Your task to perform on an android device: turn notification dots off Image 0: 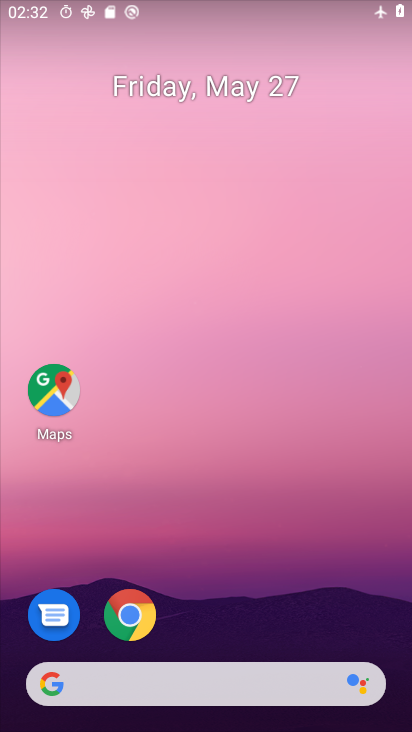
Step 0: drag from (379, 631) to (364, 247)
Your task to perform on an android device: turn notification dots off Image 1: 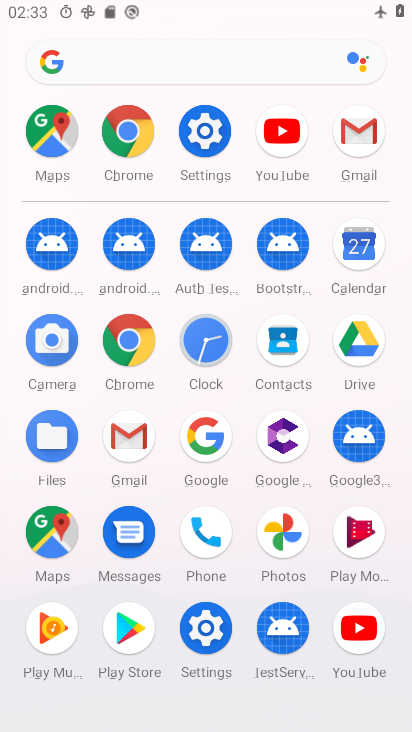
Step 1: click (218, 650)
Your task to perform on an android device: turn notification dots off Image 2: 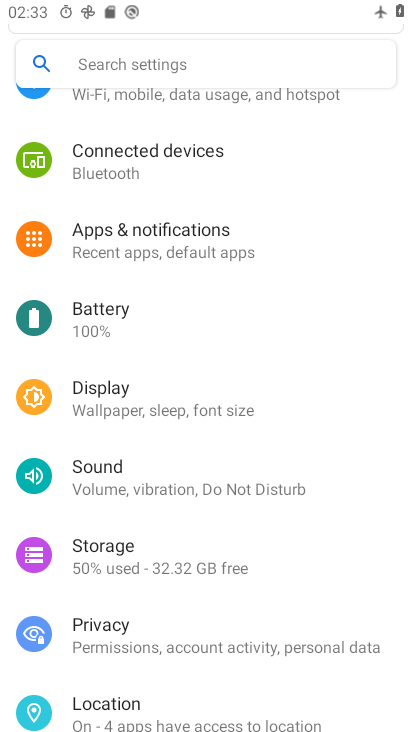
Step 2: drag from (335, 286) to (328, 420)
Your task to perform on an android device: turn notification dots off Image 3: 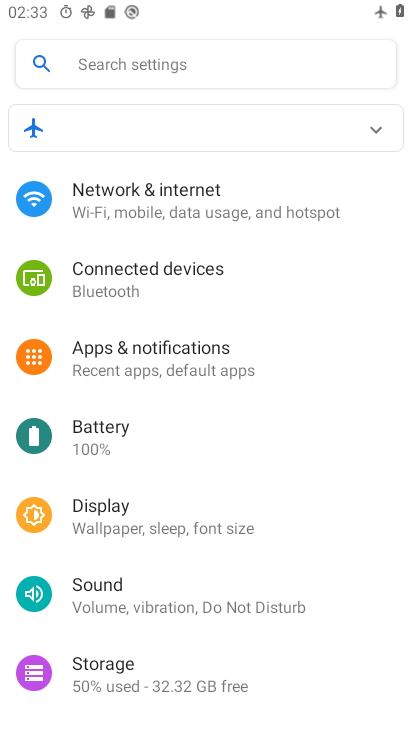
Step 3: drag from (336, 288) to (339, 444)
Your task to perform on an android device: turn notification dots off Image 4: 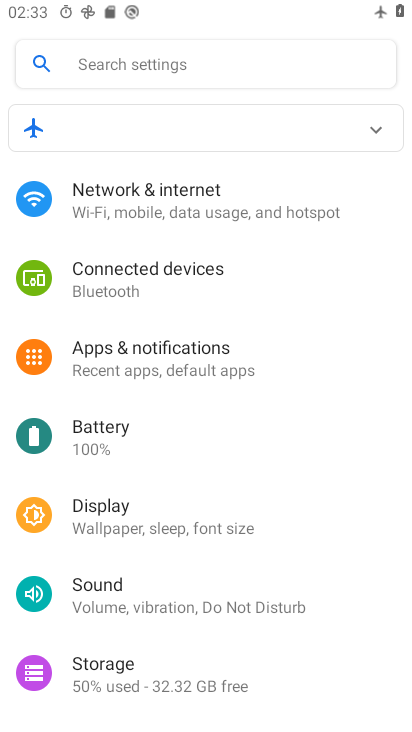
Step 4: drag from (337, 577) to (335, 420)
Your task to perform on an android device: turn notification dots off Image 5: 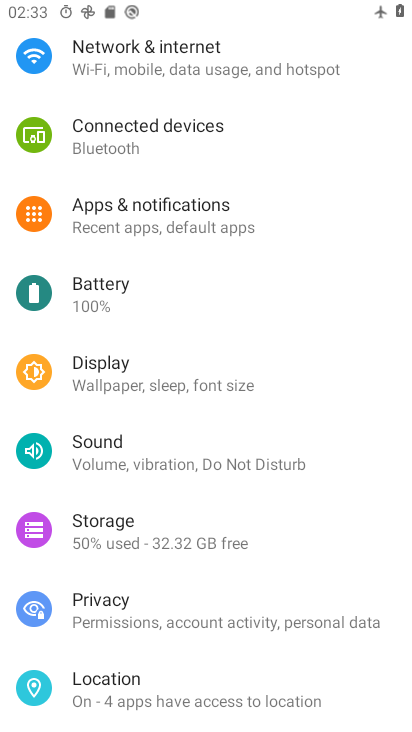
Step 5: drag from (330, 575) to (333, 481)
Your task to perform on an android device: turn notification dots off Image 6: 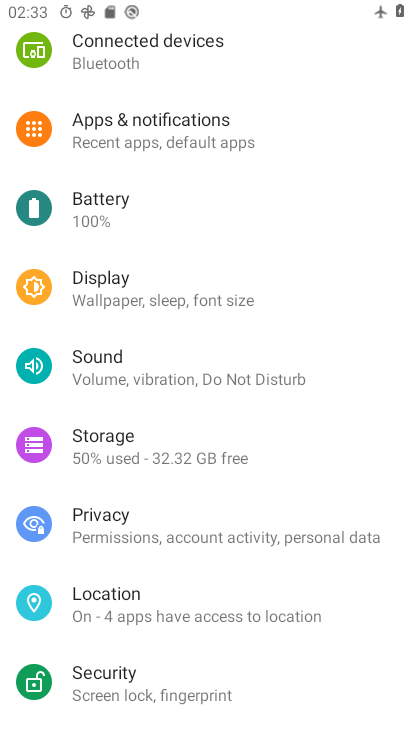
Step 6: drag from (363, 623) to (346, 490)
Your task to perform on an android device: turn notification dots off Image 7: 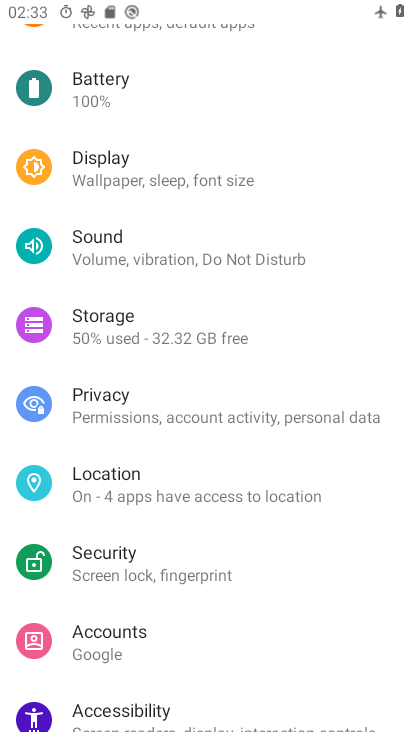
Step 7: drag from (331, 601) to (333, 490)
Your task to perform on an android device: turn notification dots off Image 8: 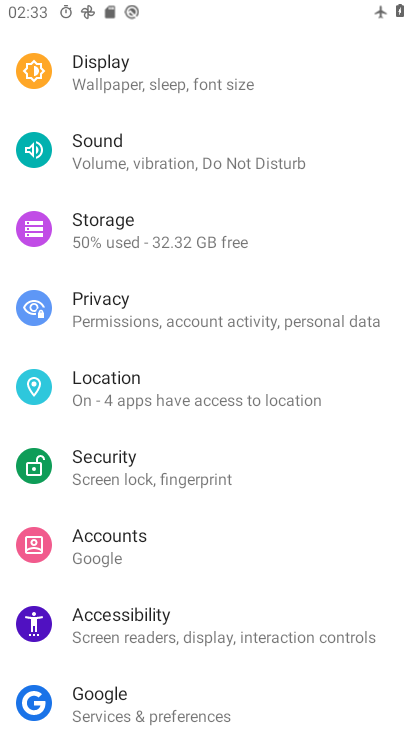
Step 8: drag from (326, 659) to (331, 500)
Your task to perform on an android device: turn notification dots off Image 9: 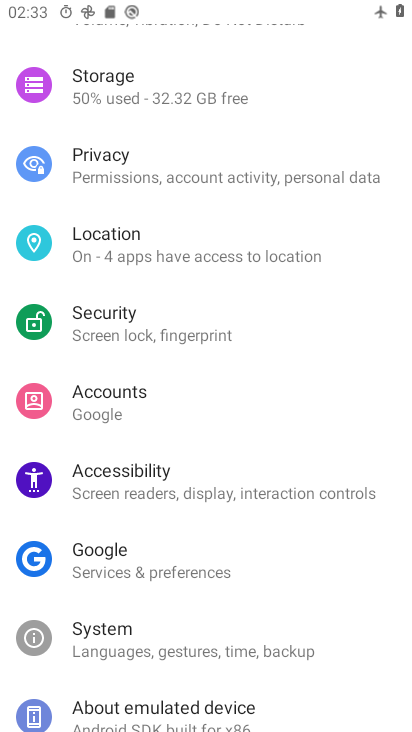
Step 9: drag from (324, 404) to (324, 515)
Your task to perform on an android device: turn notification dots off Image 10: 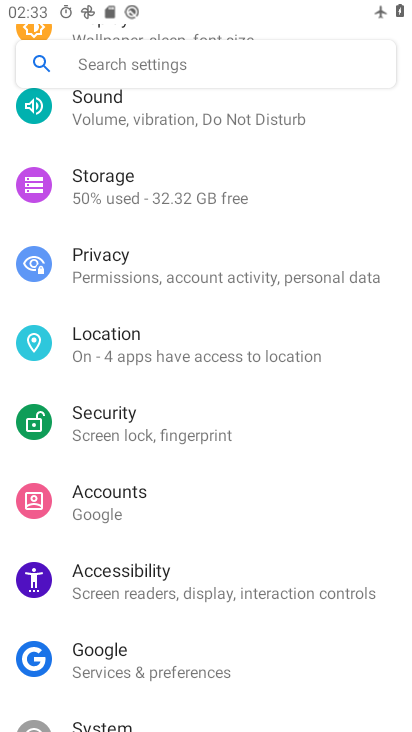
Step 10: drag from (323, 375) to (323, 472)
Your task to perform on an android device: turn notification dots off Image 11: 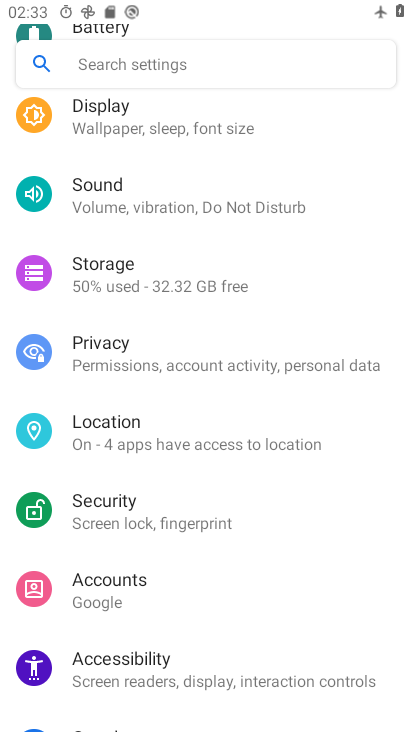
Step 11: drag from (325, 355) to (317, 471)
Your task to perform on an android device: turn notification dots off Image 12: 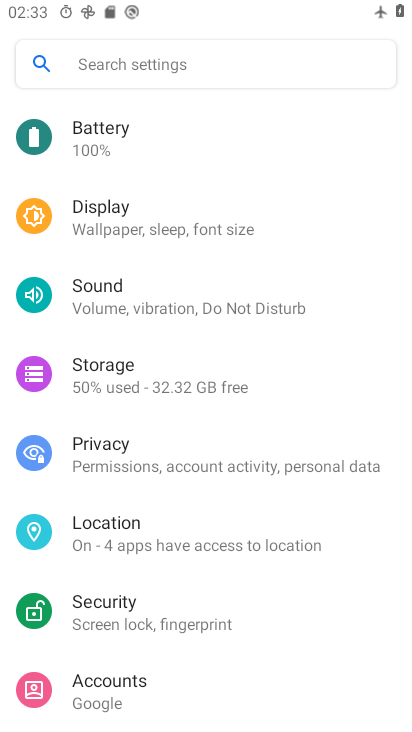
Step 12: drag from (308, 362) to (308, 479)
Your task to perform on an android device: turn notification dots off Image 13: 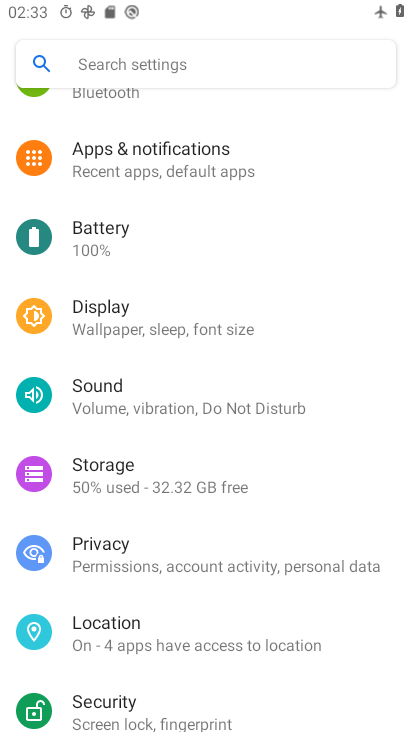
Step 13: drag from (311, 338) to (311, 460)
Your task to perform on an android device: turn notification dots off Image 14: 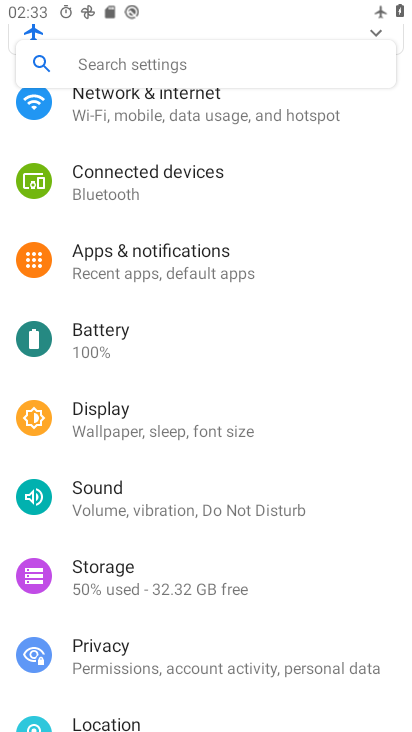
Step 14: drag from (315, 323) to (316, 470)
Your task to perform on an android device: turn notification dots off Image 15: 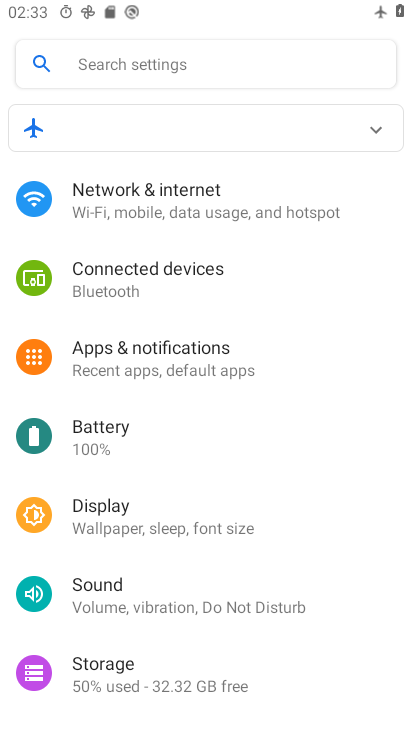
Step 15: click (234, 363)
Your task to perform on an android device: turn notification dots off Image 16: 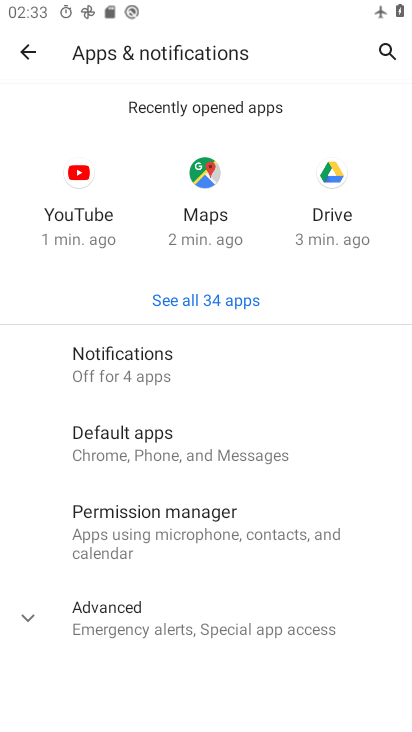
Step 16: click (181, 363)
Your task to perform on an android device: turn notification dots off Image 17: 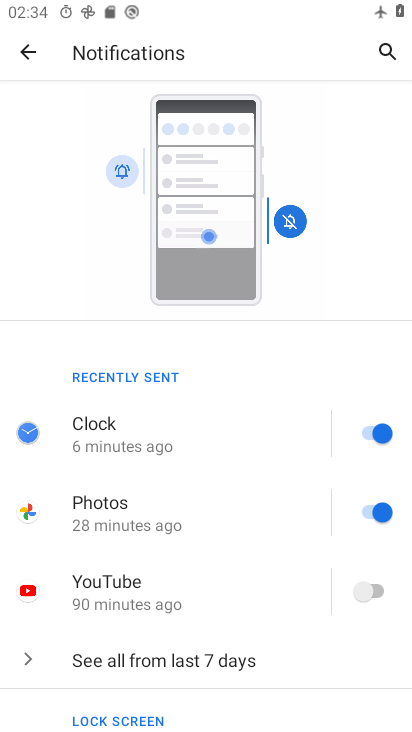
Step 17: drag from (266, 540) to (275, 447)
Your task to perform on an android device: turn notification dots off Image 18: 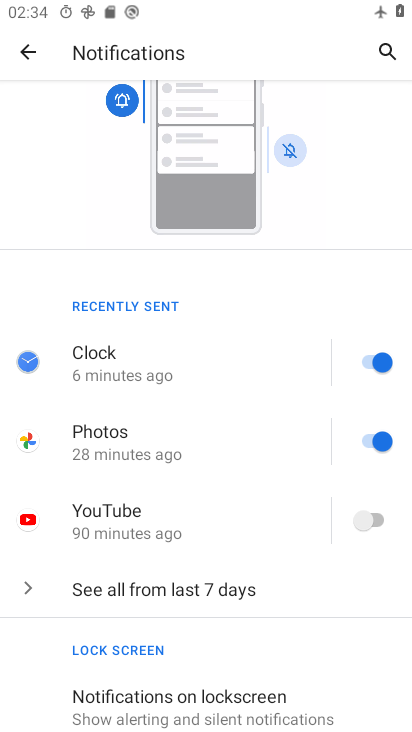
Step 18: drag from (284, 572) to (290, 422)
Your task to perform on an android device: turn notification dots off Image 19: 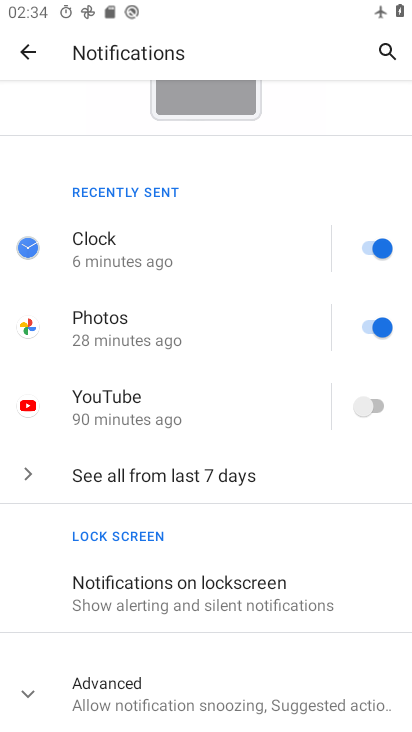
Step 19: click (258, 676)
Your task to perform on an android device: turn notification dots off Image 20: 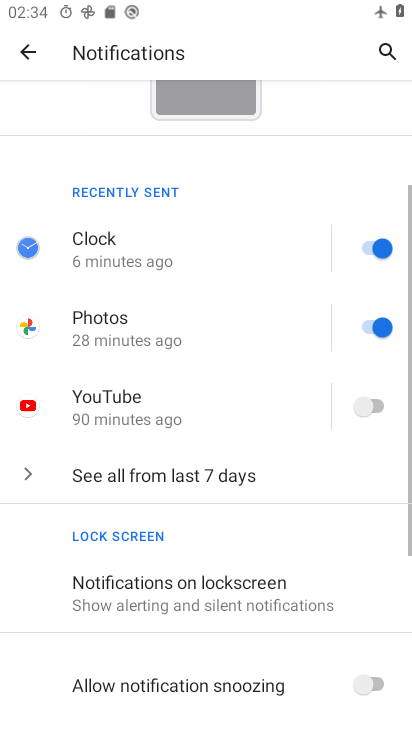
Step 20: drag from (315, 640) to (325, 508)
Your task to perform on an android device: turn notification dots off Image 21: 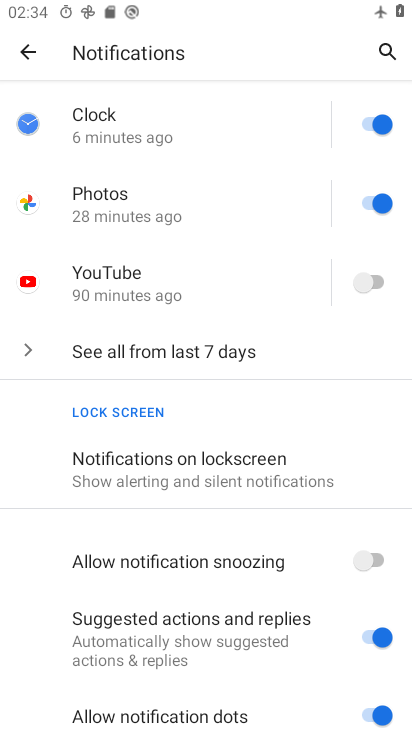
Step 21: drag from (324, 632) to (322, 524)
Your task to perform on an android device: turn notification dots off Image 22: 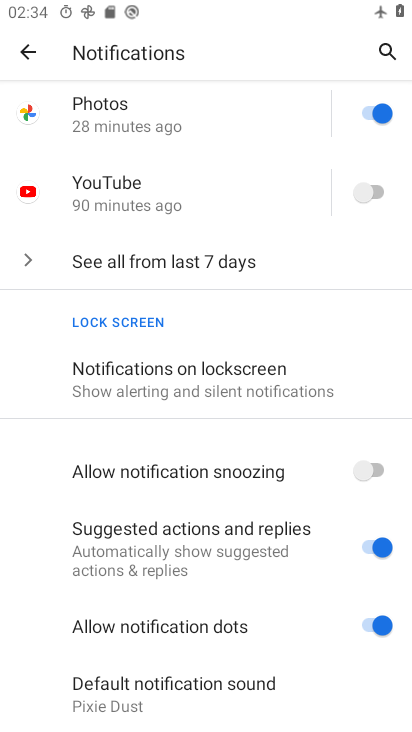
Step 22: click (369, 627)
Your task to perform on an android device: turn notification dots off Image 23: 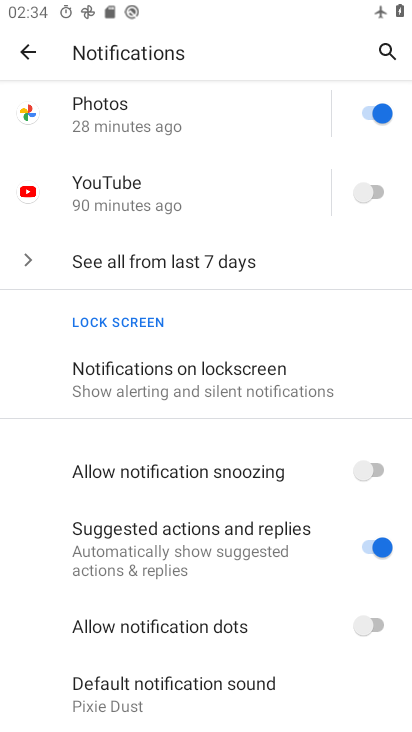
Step 23: task complete